Your task to perform on an android device: Go to Android settings Image 0: 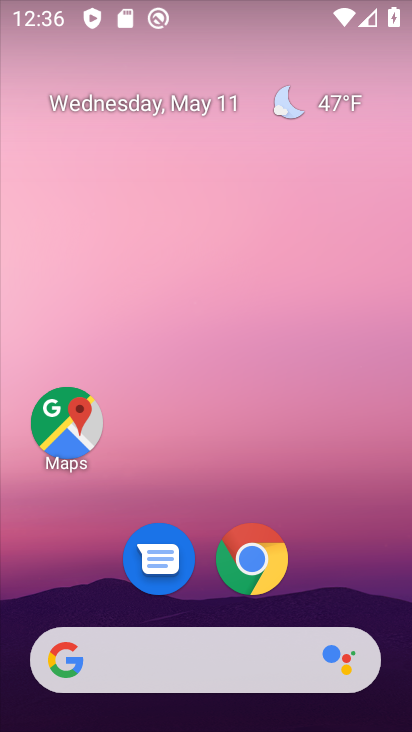
Step 0: click (212, 16)
Your task to perform on an android device: Go to Android settings Image 1: 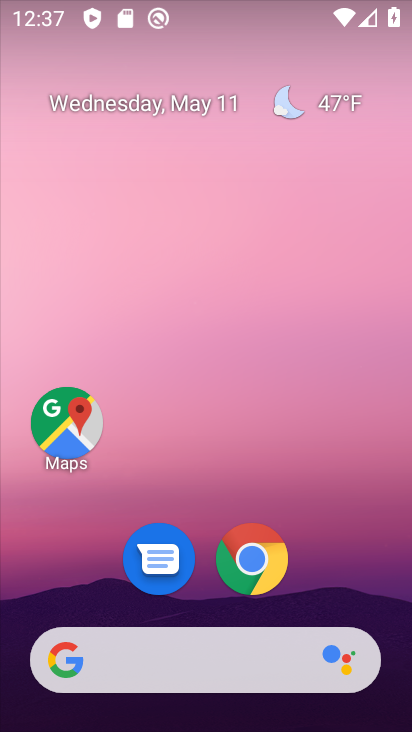
Step 1: drag from (202, 599) to (330, 4)
Your task to perform on an android device: Go to Android settings Image 2: 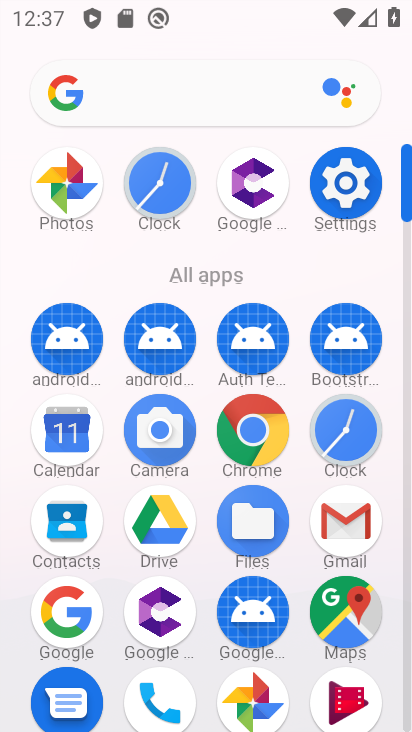
Step 2: click (340, 227)
Your task to perform on an android device: Go to Android settings Image 3: 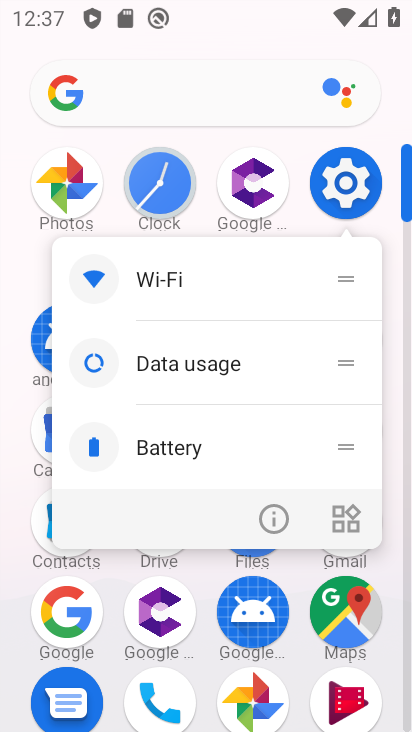
Step 3: click (354, 187)
Your task to perform on an android device: Go to Android settings Image 4: 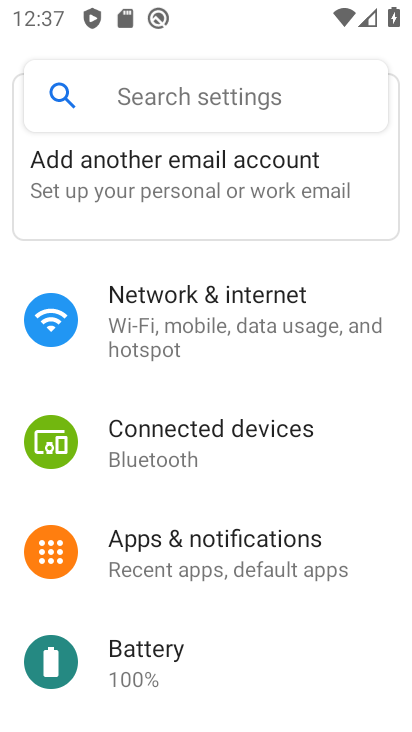
Step 4: drag from (201, 604) to (249, 306)
Your task to perform on an android device: Go to Android settings Image 5: 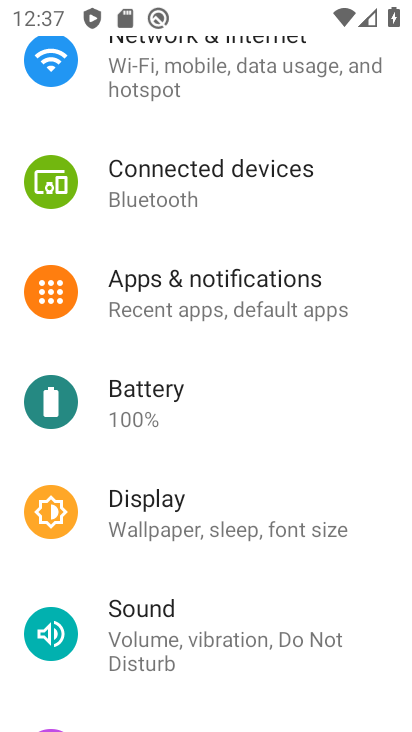
Step 5: drag from (183, 568) to (236, 216)
Your task to perform on an android device: Go to Android settings Image 6: 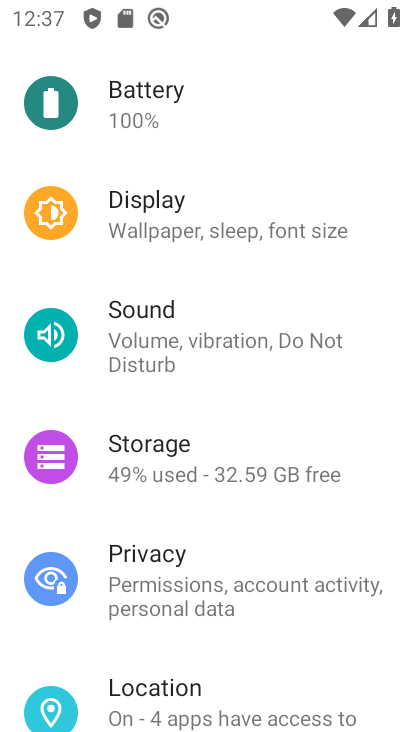
Step 6: drag from (221, 639) to (302, 103)
Your task to perform on an android device: Go to Android settings Image 7: 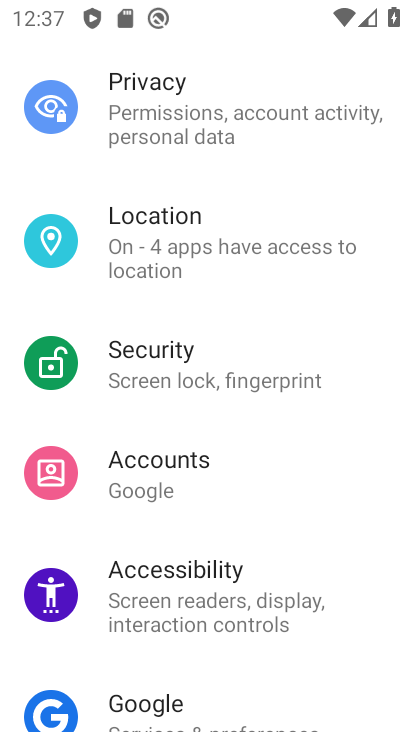
Step 7: drag from (211, 644) to (255, 78)
Your task to perform on an android device: Go to Android settings Image 8: 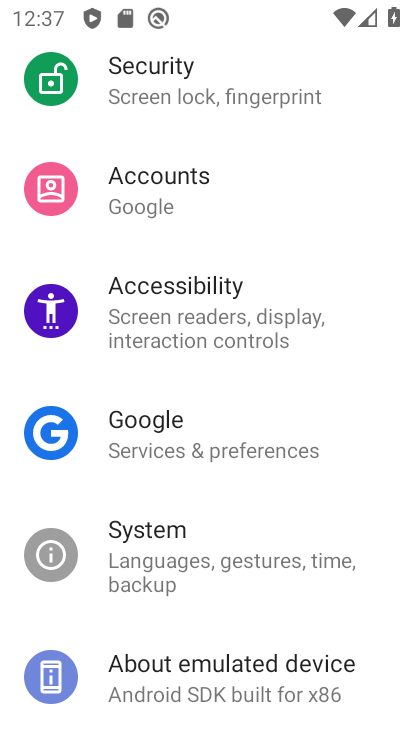
Step 8: click (204, 670)
Your task to perform on an android device: Go to Android settings Image 9: 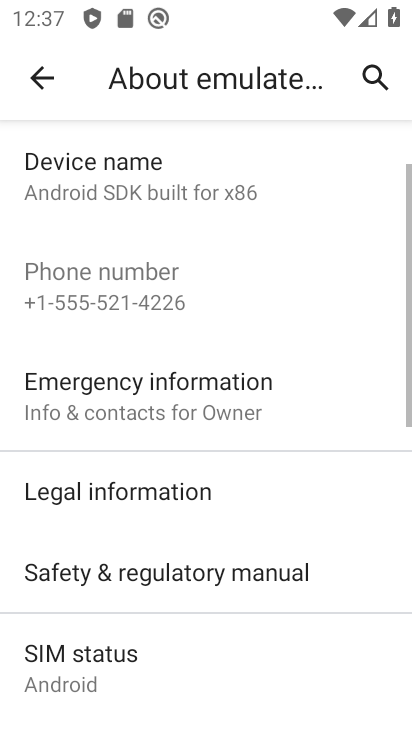
Step 9: drag from (93, 659) to (168, 24)
Your task to perform on an android device: Go to Android settings Image 10: 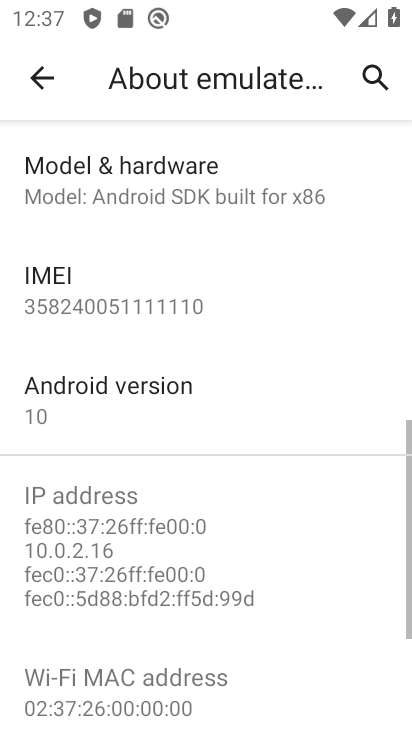
Step 10: click (114, 403)
Your task to perform on an android device: Go to Android settings Image 11: 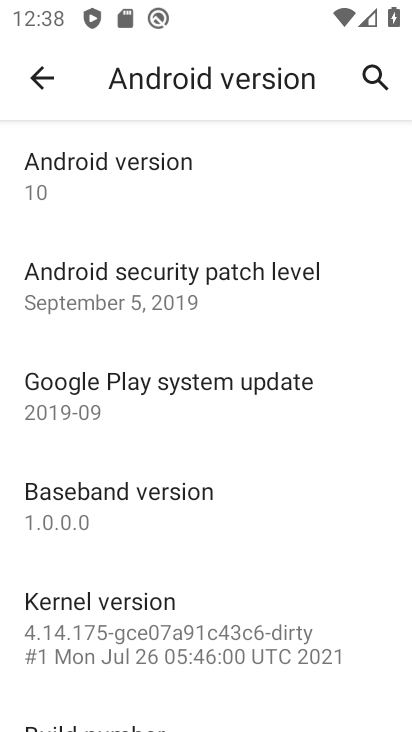
Step 11: task complete